Your task to perform on an android device: read, delete, or share a saved page in the chrome app Image 0: 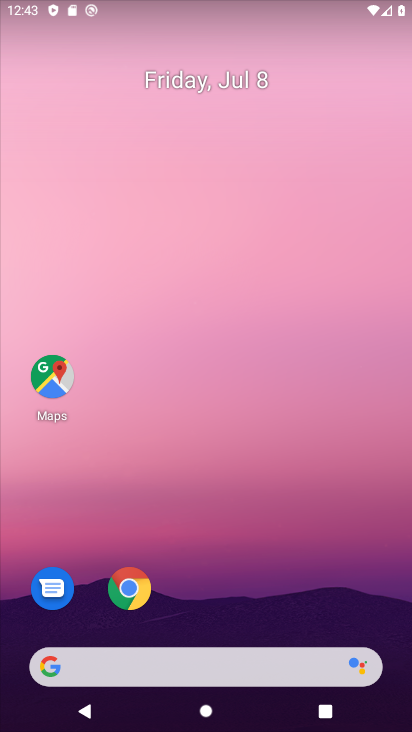
Step 0: drag from (204, 633) to (221, 36)
Your task to perform on an android device: read, delete, or share a saved page in the chrome app Image 1: 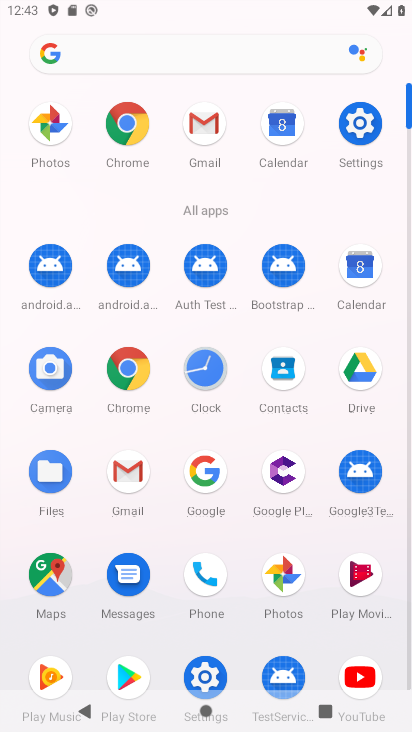
Step 1: click (121, 376)
Your task to perform on an android device: read, delete, or share a saved page in the chrome app Image 2: 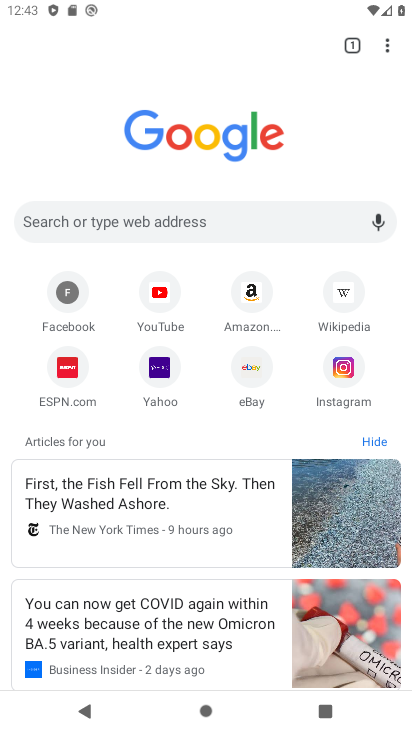
Step 2: click (386, 48)
Your task to perform on an android device: read, delete, or share a saved page in the chrome app Image 3: 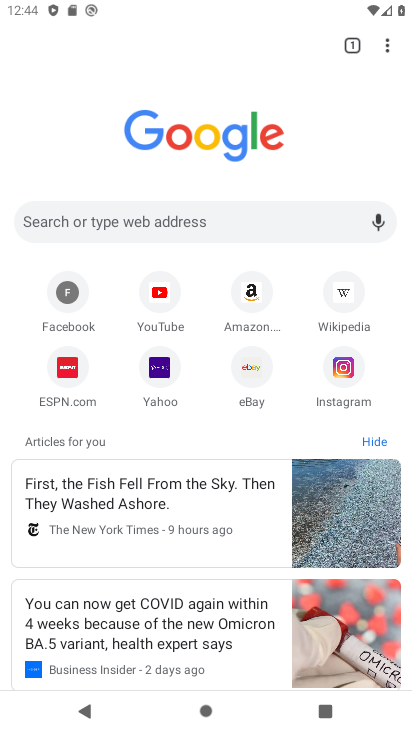
Step 3: click (382, 43)
Your task to perform on an android device: read, delete, or share a saved page in the chrome app Image 4: 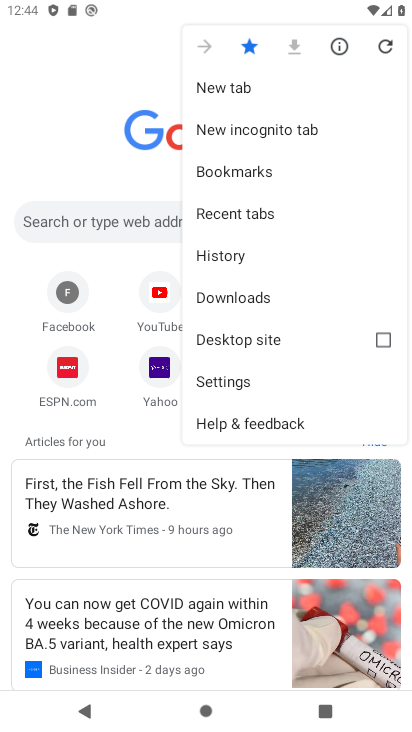
Step 4: click (232, 297)
Your task to perform on an android device: read, delete, or share a saved page in the chrome app Image 5: 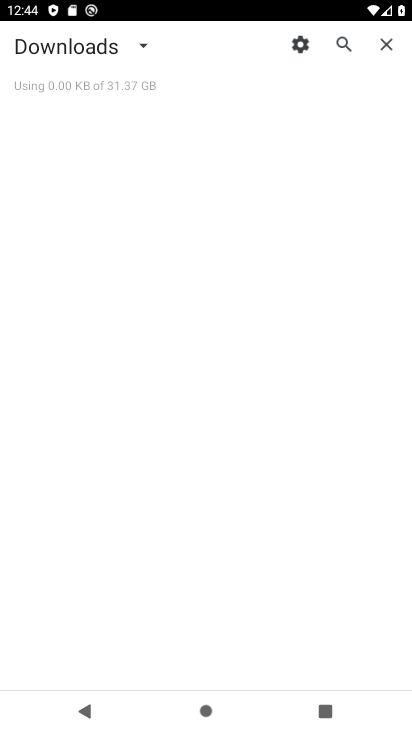
Step 5: task complete